Your task to perform on an android device: Open calendar and show me the third week of next month Image 0: 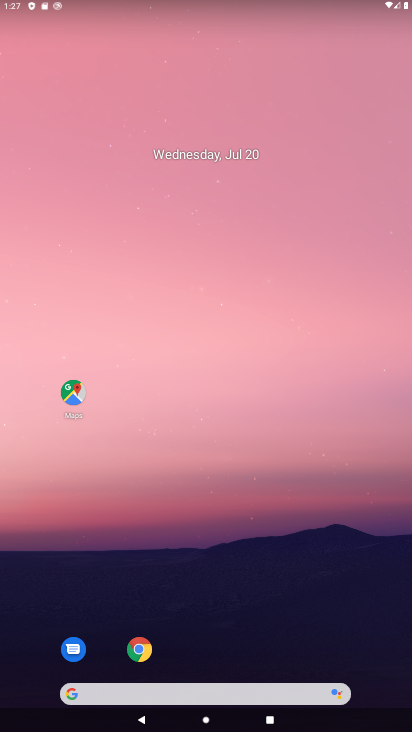
Step 0: drag from (306, 578) to (338, 290)
Your task to perform on an android device: Open calendar and show me the third week of next month Image 1: 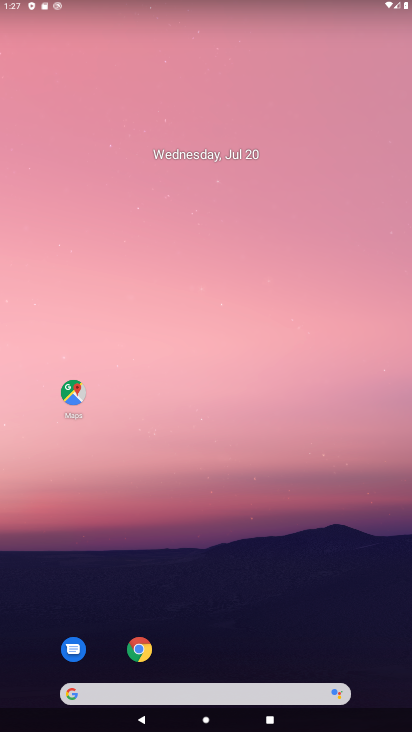
Step 1: drag from (257, 519) to (352, 119)
Your task to perform on an android device: Open calendar and show me the third week of next month Image 2: 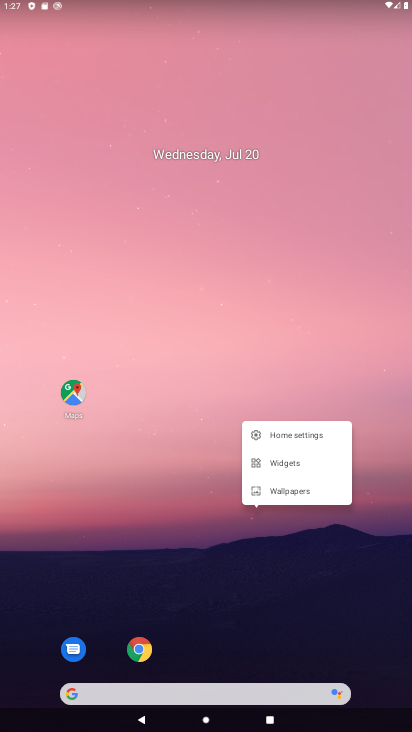
Step 2: click (149, 478)
Your task to perform on an android device: Open calendar and show me the third week of next month Image 3: 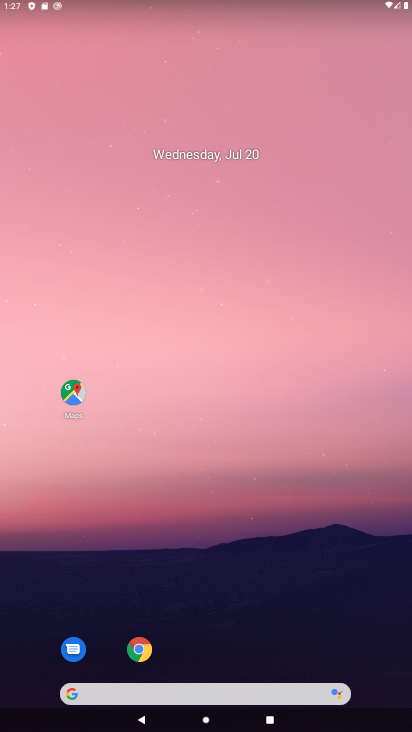
Step 3: drag from (322, 559) to (387, 214)
Your task to perform on an android device: Open calendar and show me the third week of next month Image 4: 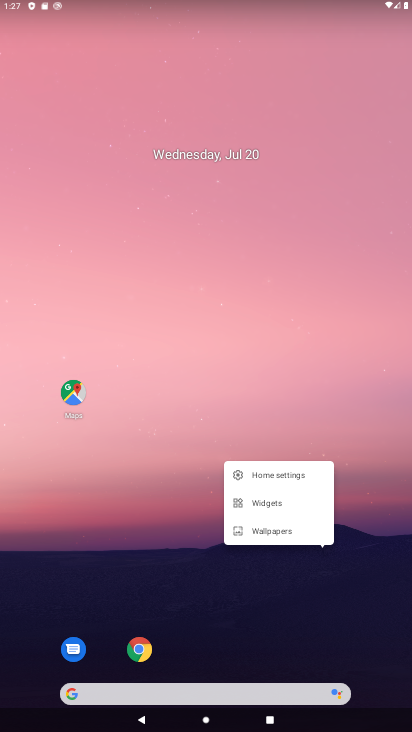
Step 4: click (102, 476)
Your task to perform on an android device: Open calendar and show me the third week of next month Image 5: 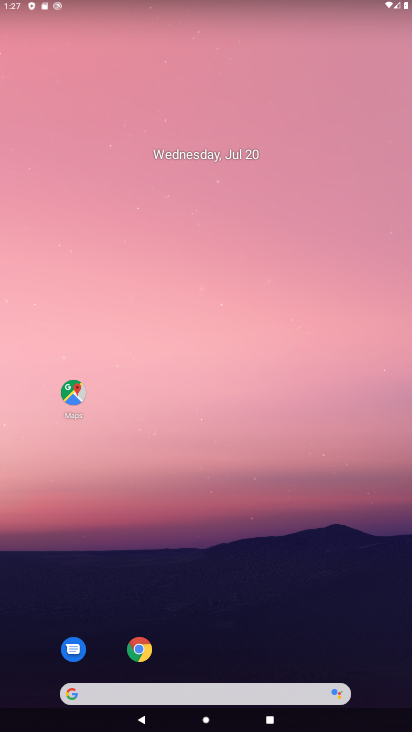
Step 5: drag from (205, 476) to (285, 138)
Your task to perform on an android device: Open calendar and show me the third week of next month Image 6: 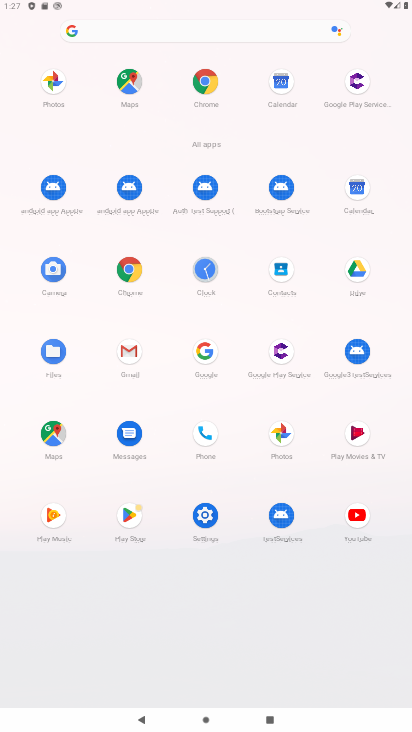
Step 6: click (353, 192)
Your task to perform on an android device: Open calendar and show me the third week of next month Image 7: 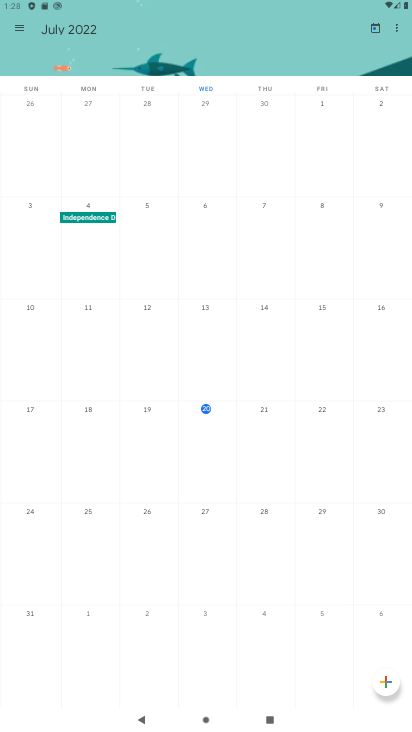
Step 7: task complete